Your task to perform on an android device: open app "TextNow: Call + Text Unlimited" Image 0: 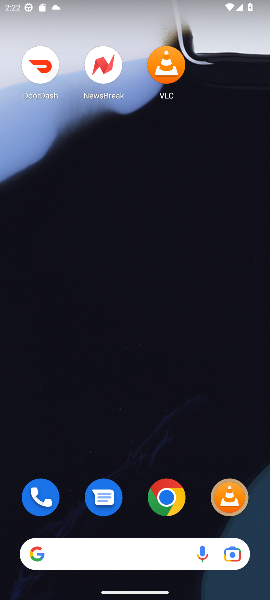
Step 0: drag from (135, 524) to (135, 65)
Your task to perform on an android device: open app "TextNow: Call + Text Unlimited" Image 1: 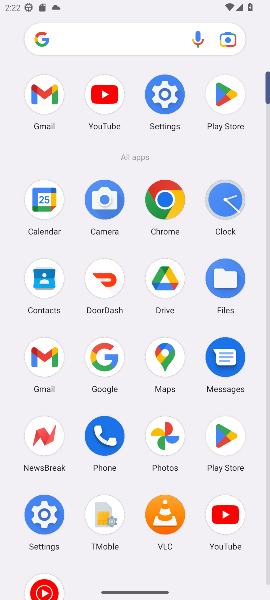
Step 1: click (227, 92)
Your task to perform on an android device: open app "TextNow: Call + Text Unlimited" Image 2: 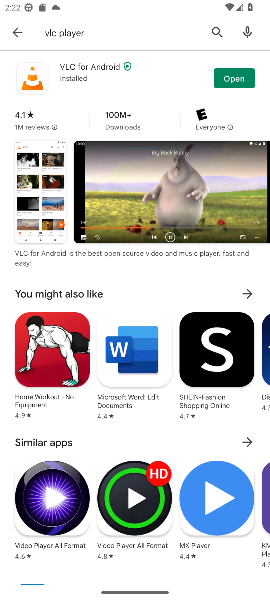
Step 2: click (24, 25)
Your task to perform on an android device: open app "TextNow: Call + Text Unlimited" Image 3: 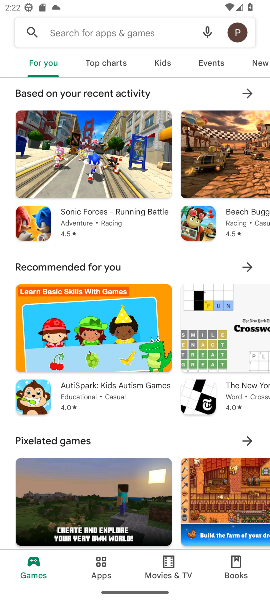
Step 3: click (117, 22)
Your task to perform on an android device: open app "TextNow: Call + Text Unlimited" Image 4: 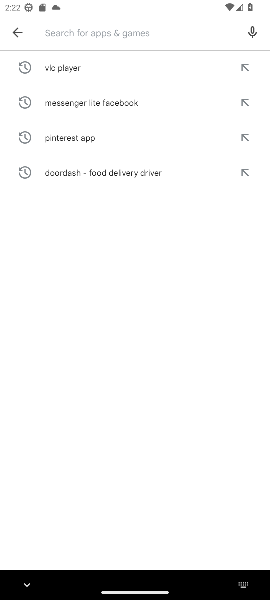
Step 4: type "extNow: Call + Text Unlimited "
Your task to perform on an android device: open app "TextNow: Call + Text Unlimited" Image 5: 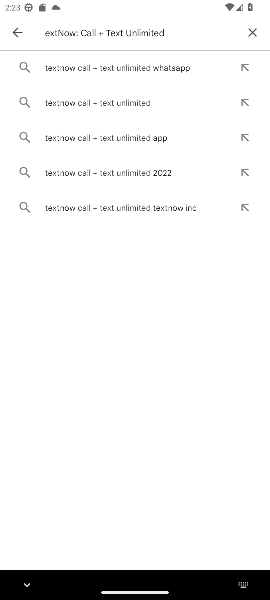
Step 5: click (107, 69)
Your task to perform on an android device: open app "TextNow: Call + Text Unlimited" Image 6: 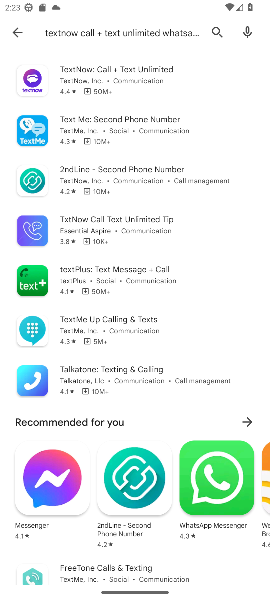
Step 6: click (107, 69)
Your task to perform on an android device: open app "TextNow: Call + Text Unlimited" Image 7: 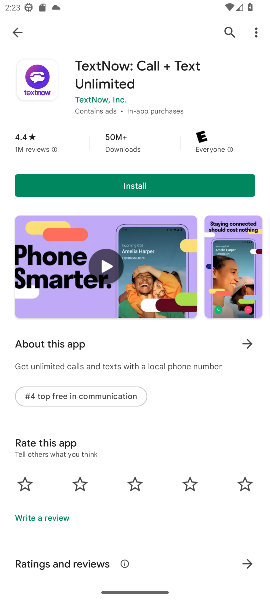
Step 7: click (140, 186)
Your task to perform on an android device: open app "TextNow: Call + Text Unlimited" Image 8: 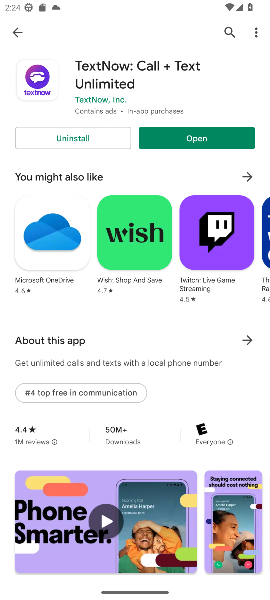
Step 8: click (195, 132)
Your task to perform on an android device: open app "TextNow: Call + Text Unlimited" Image 9: 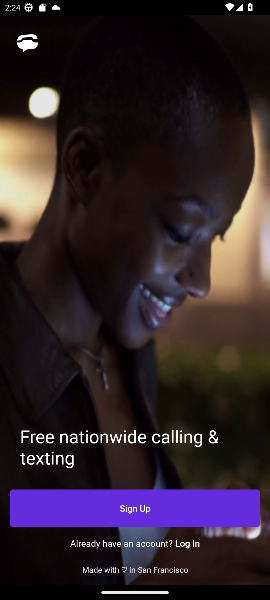
Step 9: task complete